Your task to perform on an android device: What is the recent news? Image 0: 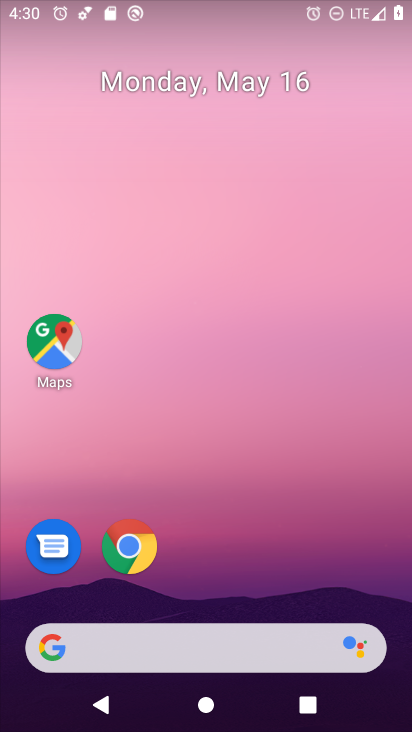
Step 0: drag from (1, 218) to (377, 297)
Your task to perform on an android device: What is the recent news? Image 1: 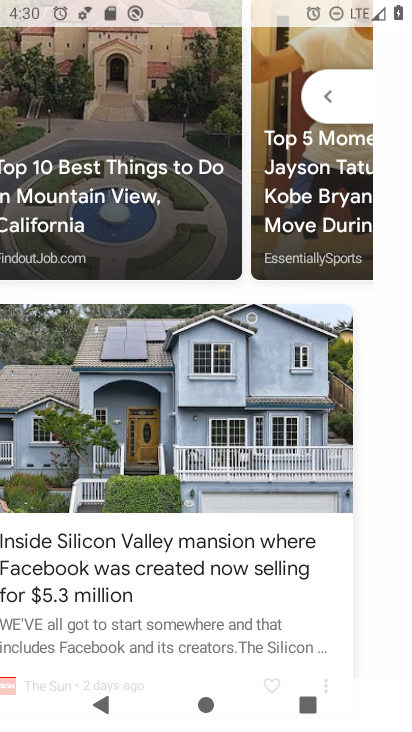
Step 1: task complete